Your task to perform on an android device: change notification settings in the gmail app Image 0: 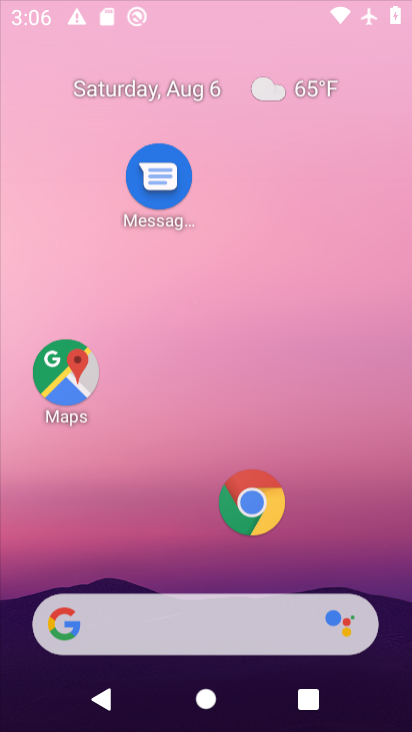
Step 0: press home button
Your task to perform on an android device: change notification settings in the gmail app Image 1: 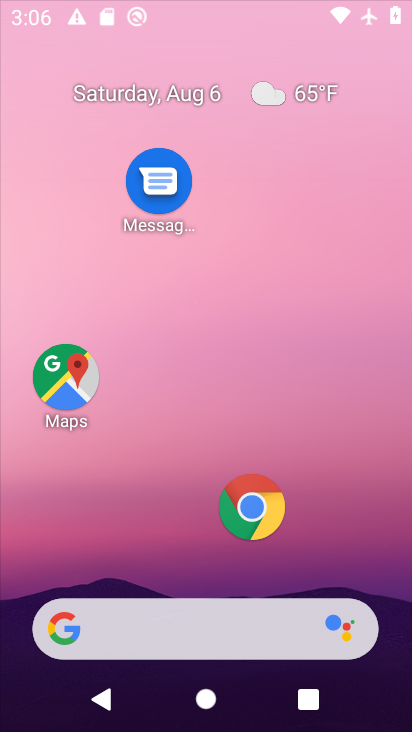
Step 1: drag from (142, 474) to (242, 7)
Your task to perform on an android device: change notification settings in the gmail app Image 2: 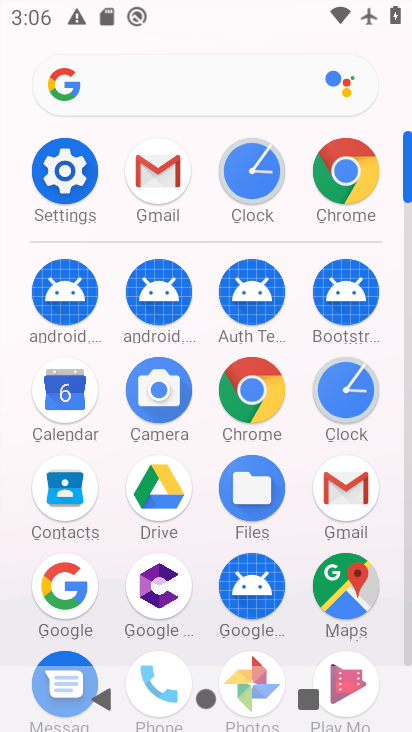
Step 2: click (344, 503)
Your task to perform on an android device: change notification settings in the gmail app Image 3: 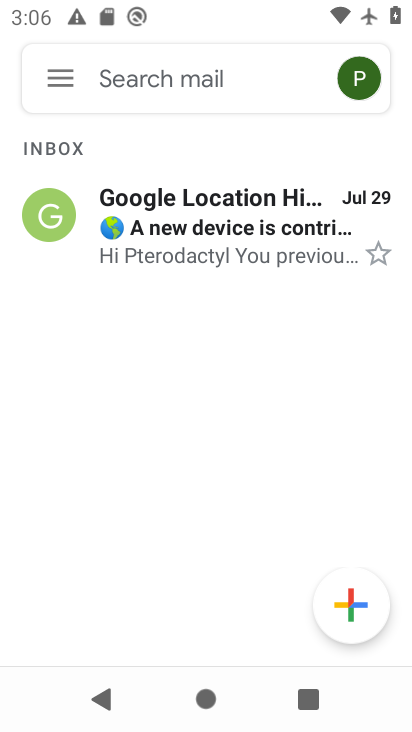
Step 3: click (52, 89)
Your task to perform on an android device: change notification settings in the gmail app Image 4: 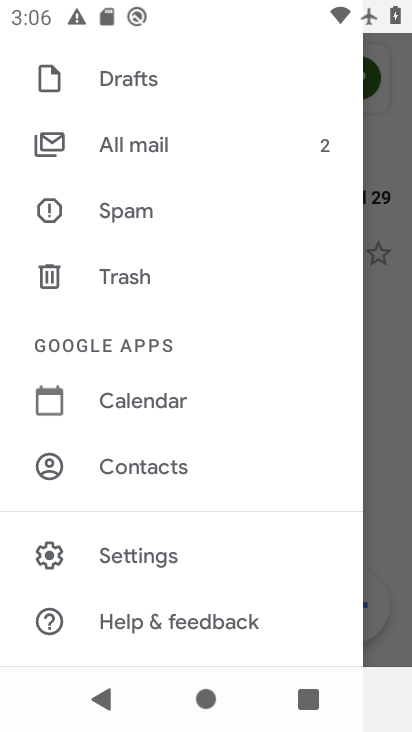
Step 4: click (139, 562)
Your task to perform on an android device: change notification settings in the gmail app Image 5: 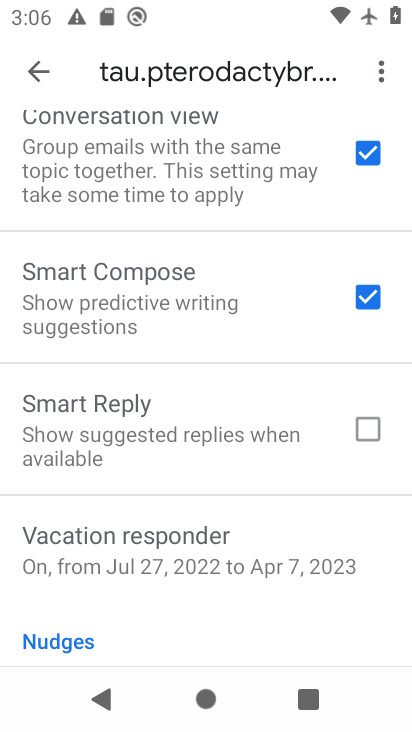
Step 5: drag from (138, 277) to (98, 728)
Your task to perform on an android device: change notification settings in the gmail app Image 6: 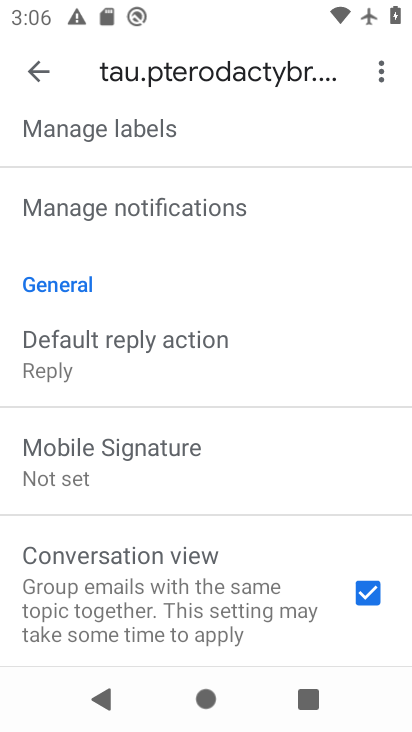
Step 6: drag from (144, 286) to (147, 667)
Your task to perform on an android device: change notification settings in the gmail app Image 7: 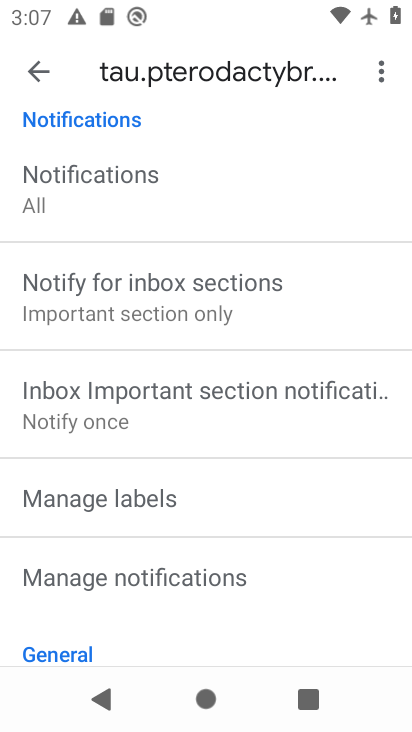
Step 7: click (33, 66)
Your task to perform on an android device: change notification settings in the gmail app Image 8: 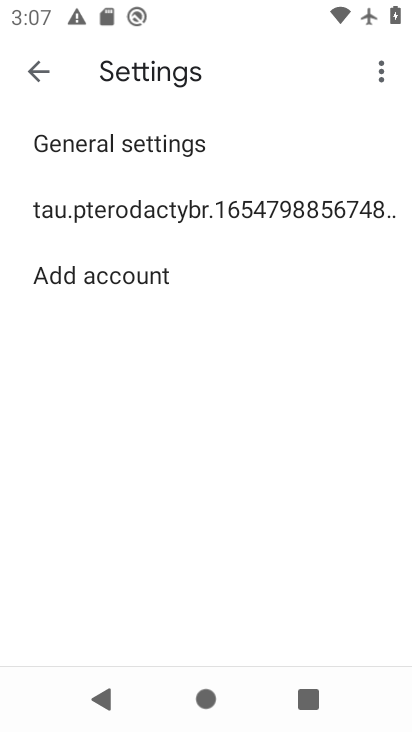
Step 8: click (161, 154)
Your task to perform on an android device: change notification settings in the gmail app Image 9: 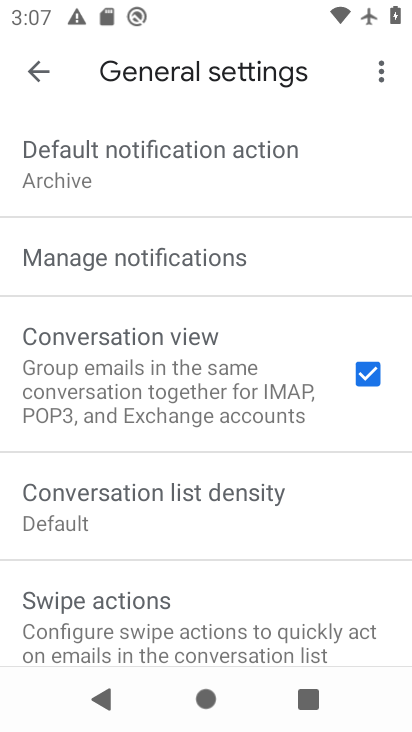
Step 9: click (131, 255)
Your task to perform on an android device: change notification settings in the gmail app Image 10: 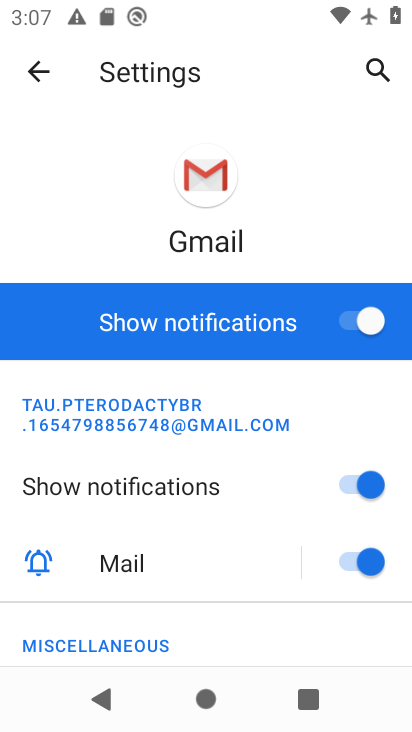
Step 10: click (322, 333)
Your task to perform on an android device: change notification settings in the gmail app Image 11: 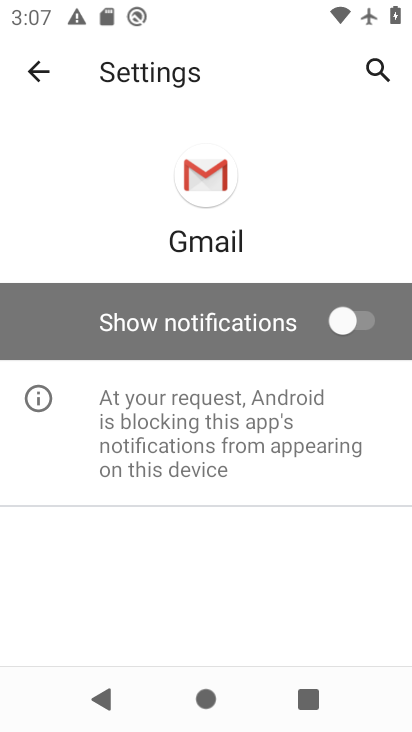
Step 11: task complete